Your task to perform on an android device: Go to wifi settings Image 0: 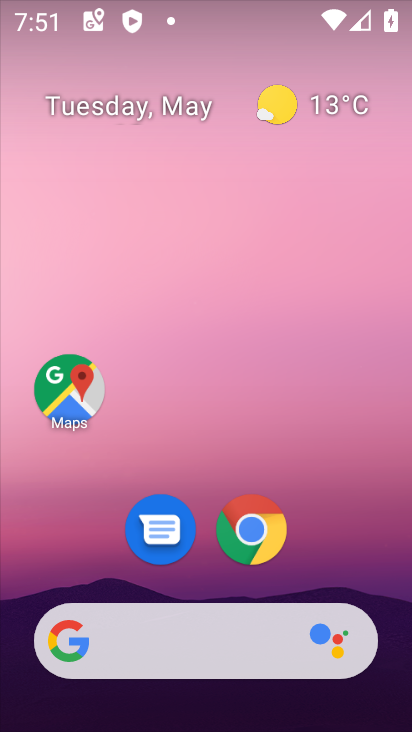
Step 0: drag from (370, 563) to (239, 2)
Your task to perform on an android device: Go to wifi settings Image 1: 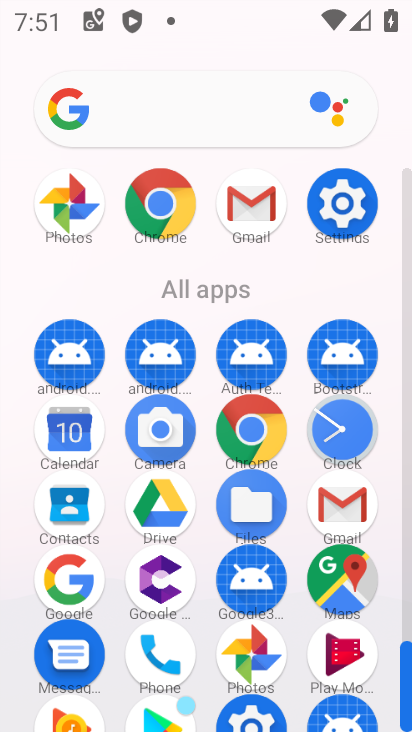
Step 1: click (338, 182)
Your task to perform on an android device: Go to wifi settings Image 2: 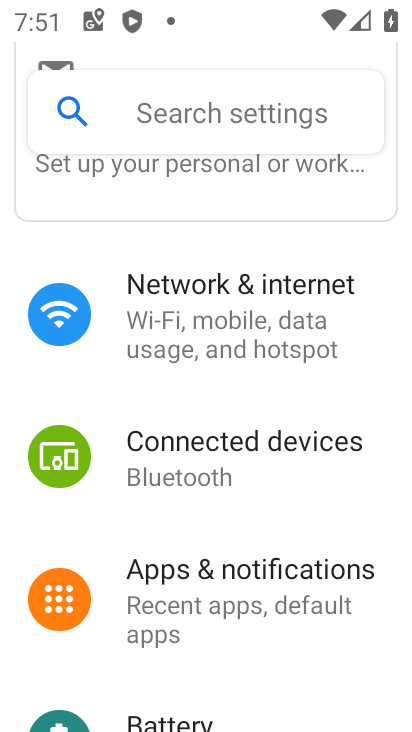
Step 2: click (301, 326)
Your task to perform on an android device: Go to wifi settings Image 3: 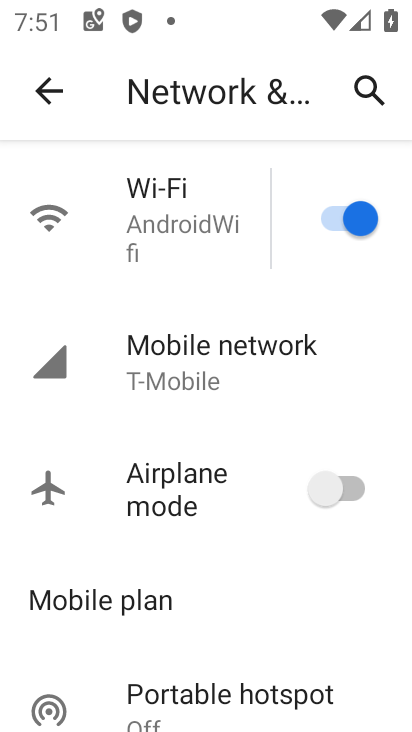
Step 3: task complete